Your task to perform on an android device: turn notification dots off Image 0: 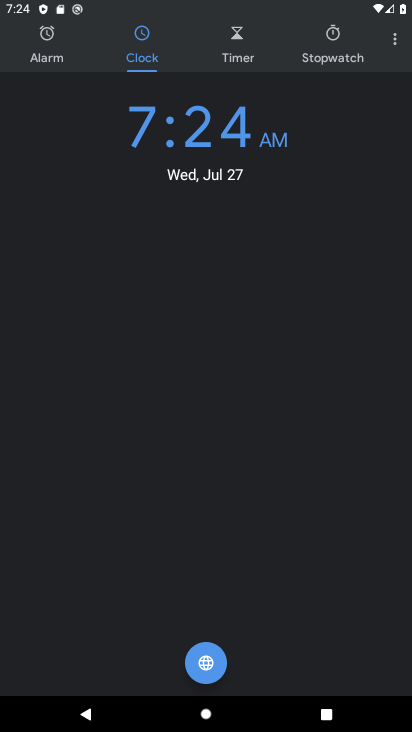
Step 0: press home button
Your task to perform on an android device: turn notification dots off Image 1: 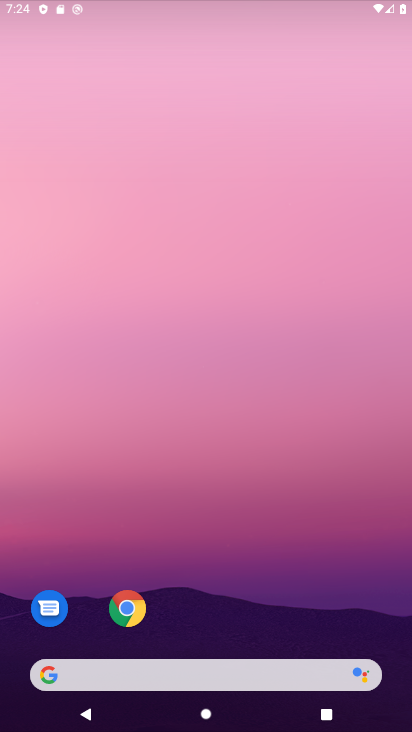
Step 1: click (299, 182)
Your task to perform on an android device: turn notification dots off Image 2: 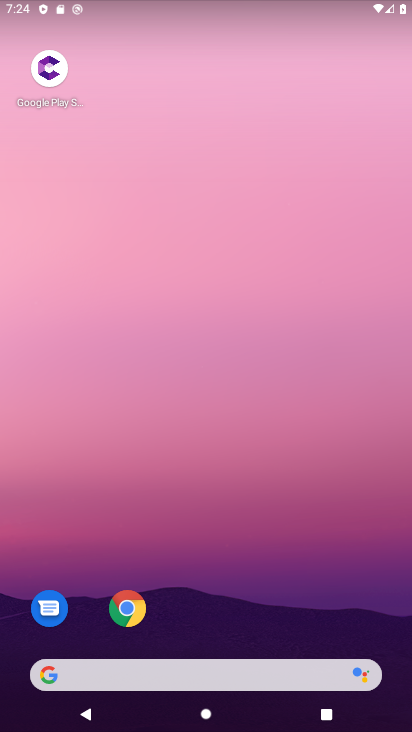
Step 2: drag from (265, 532) to (231, 57)
Your task to perform on an android device: turn notification dots off Image 3: 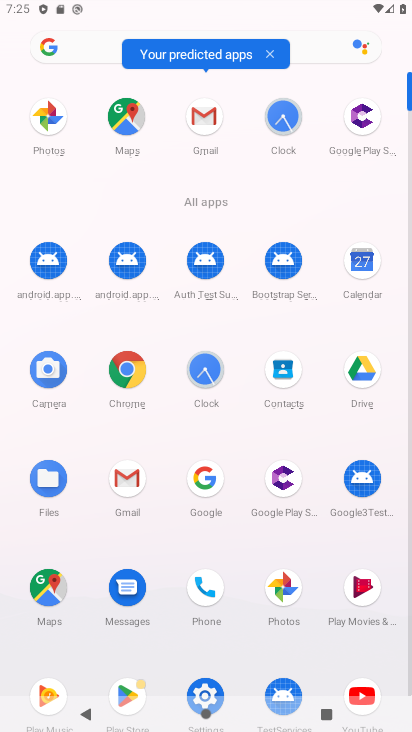
Step 3: drag from (248, 500) to (250, 282)
Your task to perform on an android device: turn notification dots off Image 4: 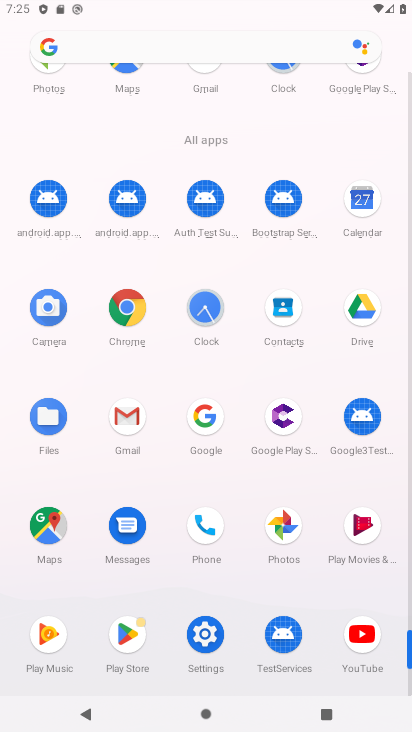
Step 4: click (198, 638)
Your task to perform on an android device: turn notification dots off Image 5: 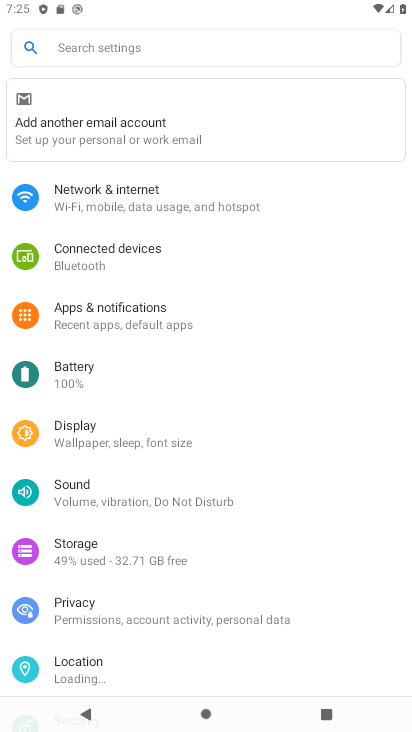
Step 5: task complete